Your task to perform on an android device: When is my next appointment? Image 0: 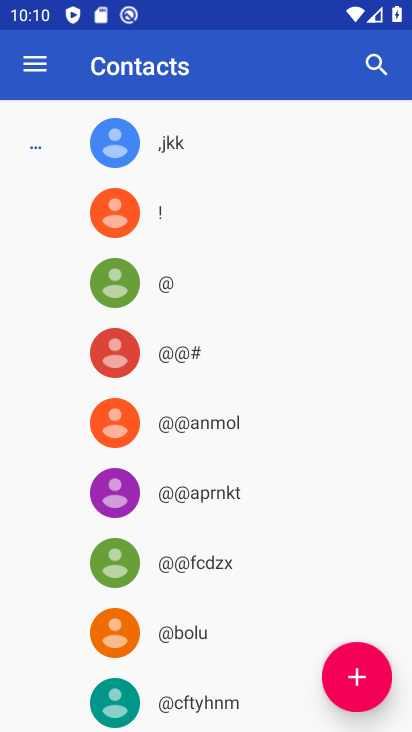
Step 0: press home button
Your task to perform on an android device: When is my next appointment? Image 1: 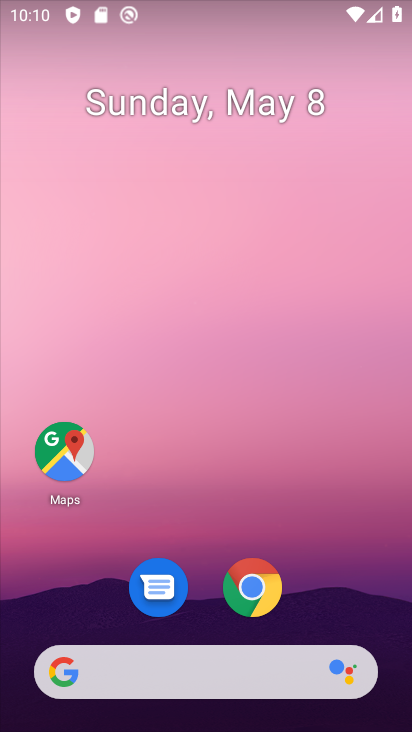
Step 1: drag from (358, 598) to (129, 1)
Your task to perform on an android device: When is my next appointment? Image 2: 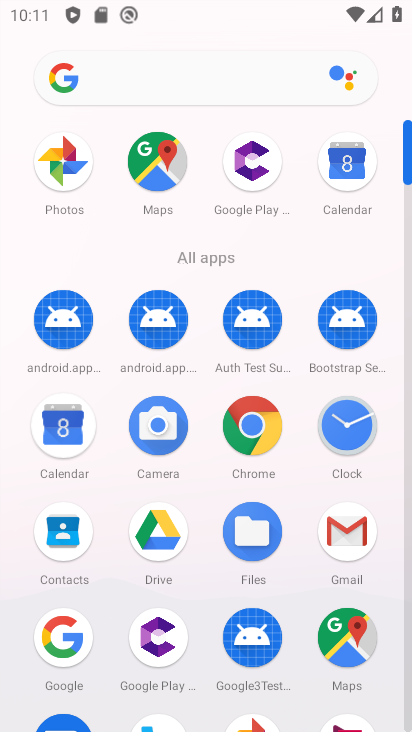
Step 2: click (343, 172)
Your task to perform on an android device: When is my next appointment? Image 3: 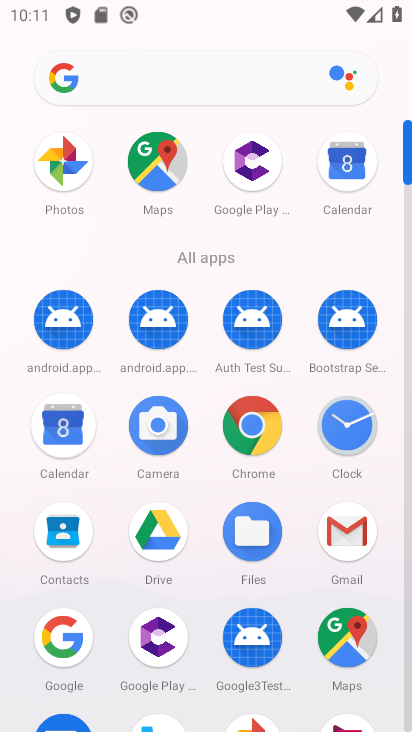
Step 3: click (343, 172)
Your task to perform on an android device: When is my next appointment? Image 4: 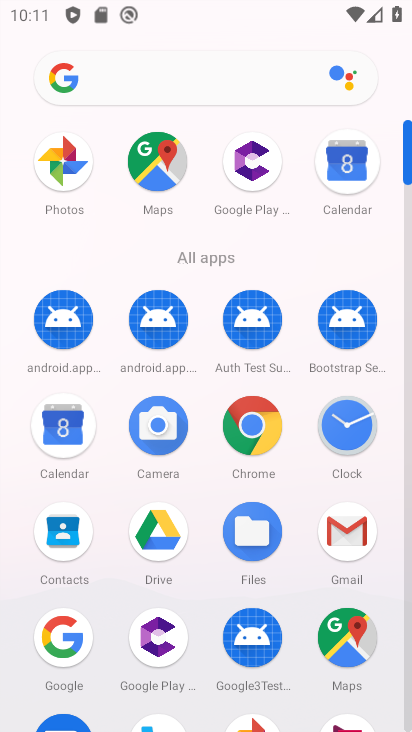
Step 4: click (343, 172)
Your task to perform on an android device: When is my next appointment? Image 5: 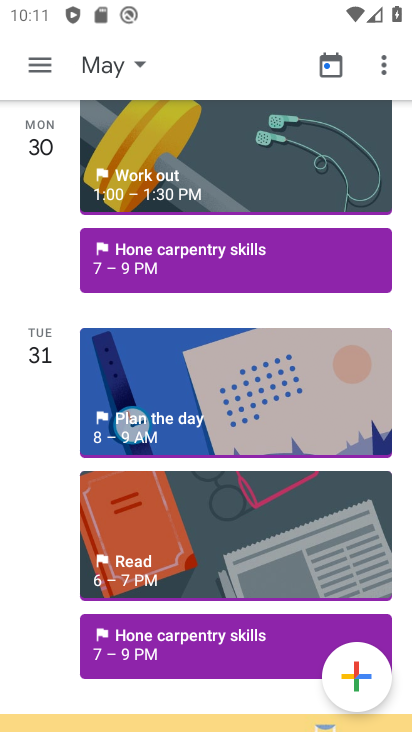
Step 5: drag from (172, 626) to (160, 332)
Your task to perform on an android device: When is my next appointment? Image 6: 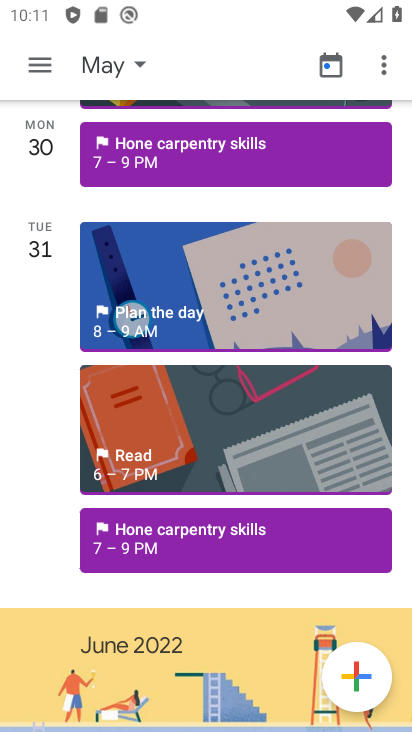
Step 6: drag from (257, 486) to (238, 173)
Your task to perform on an android device: When is my next appointment? Image 7: 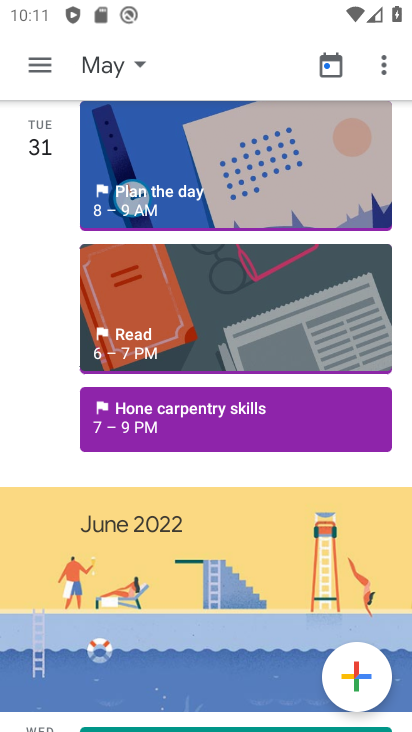
Step 7: drag from (257, 512) to (194, 207)
Your task to perform on an android device: When is my next appointment? Image 8: 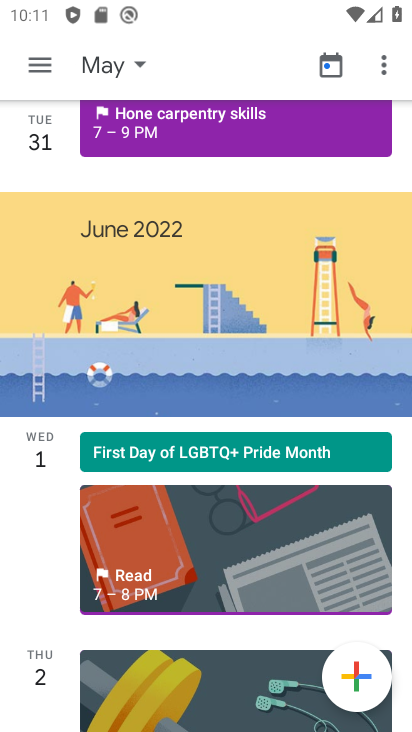
Step 8: drag from (74, 326) to (168, 580)
Your task to perform on an android device: When is my next appointment? Image 9: 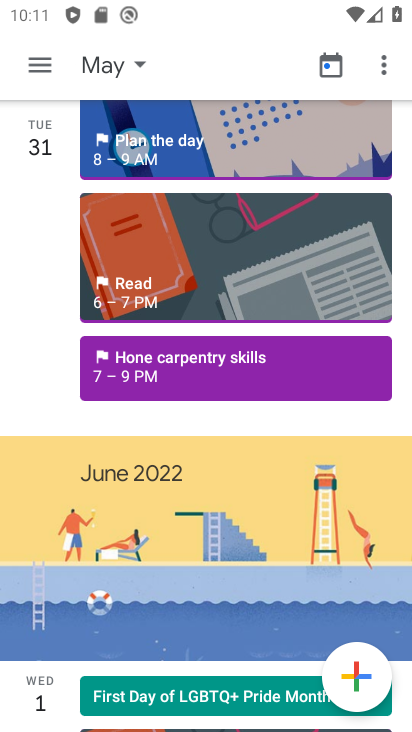
Step 9: drag from (273, 548) to (299, 635)
Your task to perform on an android device: When is my next appointment? Image 10: 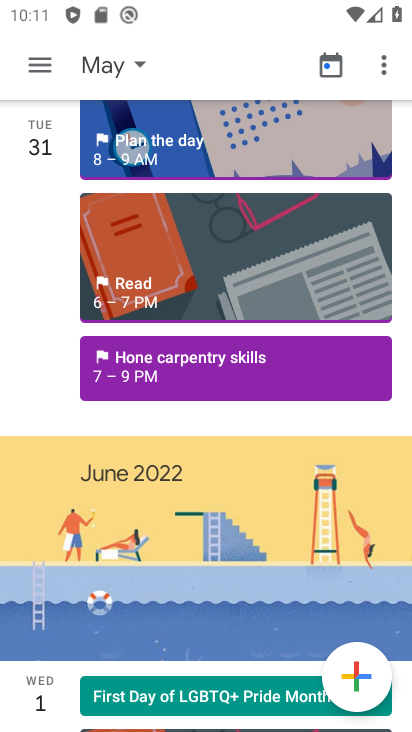
Step 10: click (254, 607)
Your task to perform on an android device: When is my next appointment? Image 11: 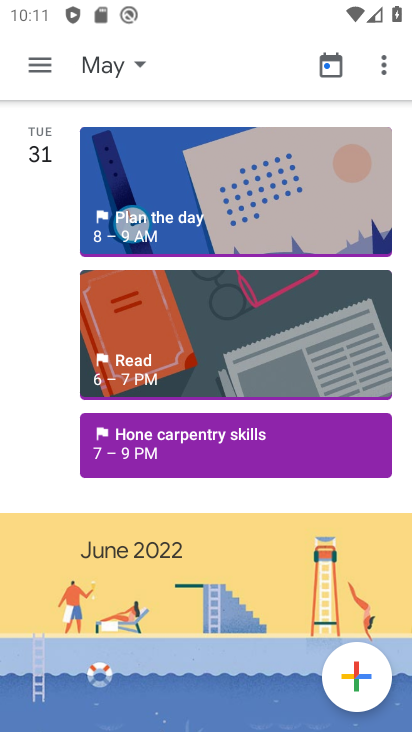
Step 11: task complete